Your task to perform on an android device: Open battery settings Image 0: 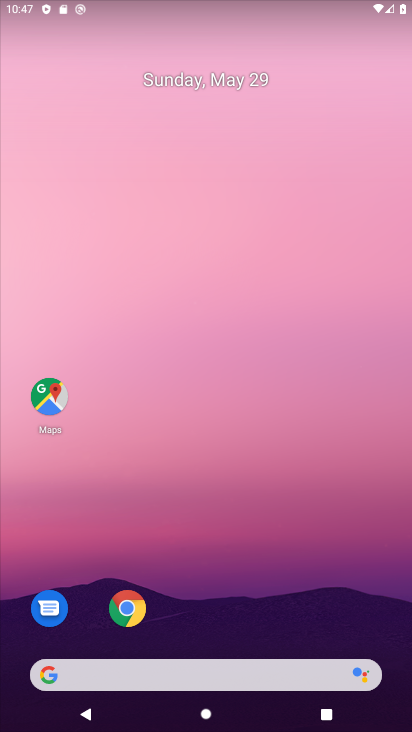
Step 0: drag from (129, 724) to (113, 38)
Your task to perform on an android device: Open battery settings Image 1: 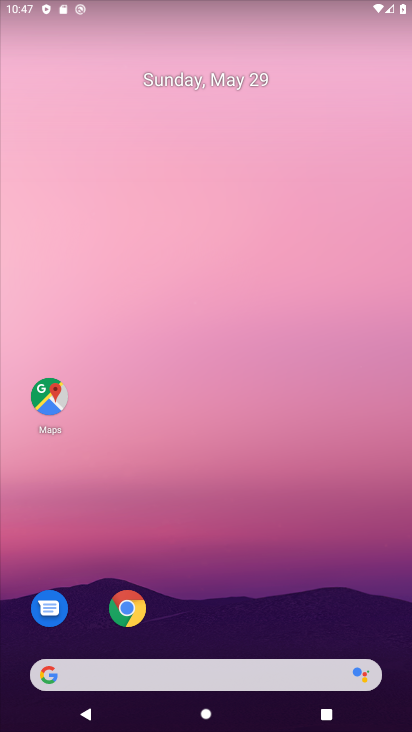
Step 1: drag from (144, 728) to (104, 19)
Your task to perform on an android device: Open battery settings Image 2: 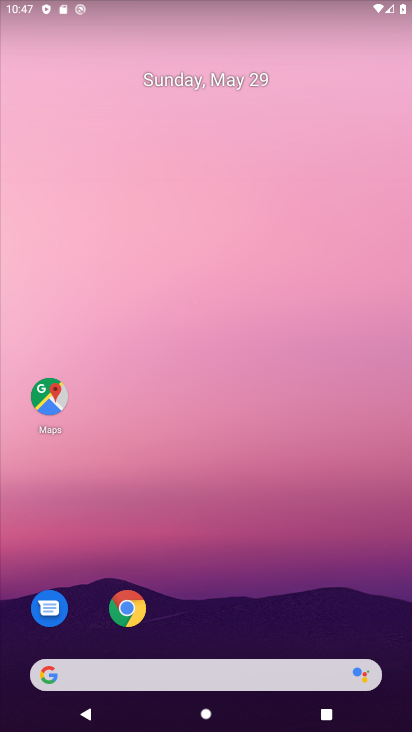
Step 2: drag from (227, 7) to (179, 539)
Your task to perform on an android device: Open battery settings Image 3: 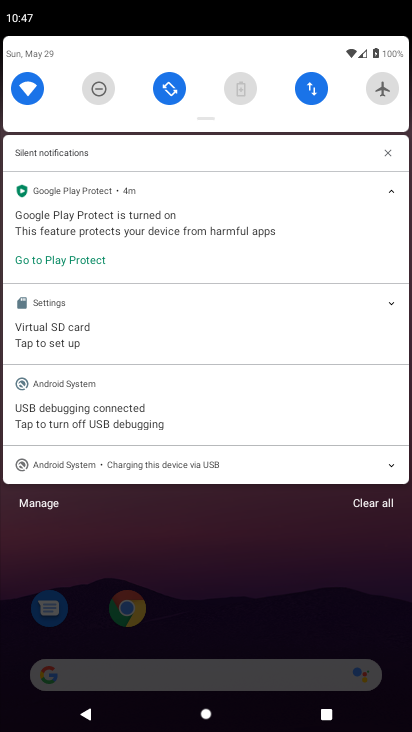
Step 3: click (204, 103)
Your task to perform on an android device: Open battery settings Image 4: 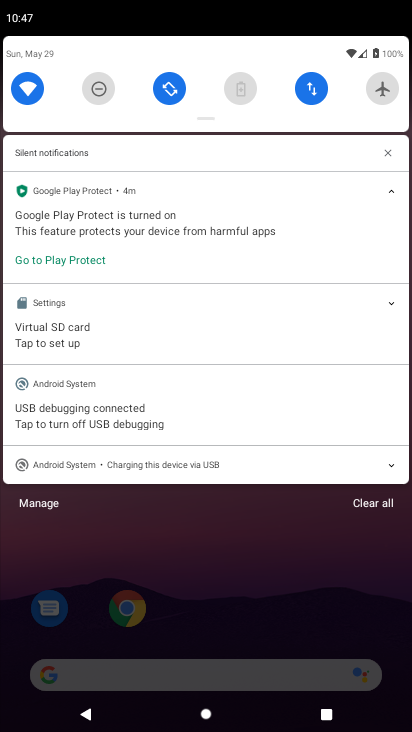
Step 4: drag from (210, 114) to (204, 556)
Your task to perform on an android device: Open battery settings Image 5: 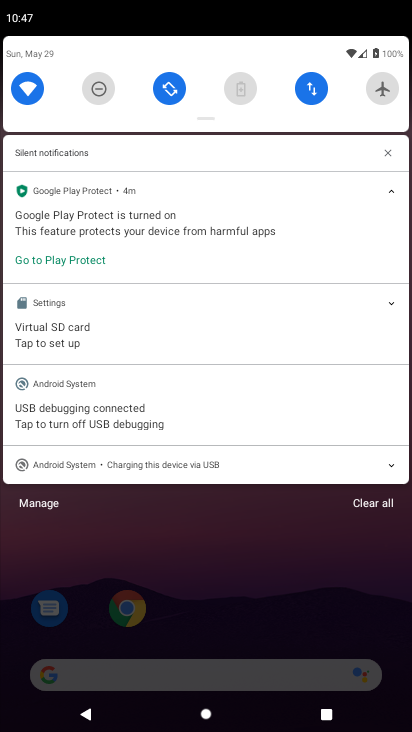
Step 5: drag from (204, 122) to (218, 547)
Your task to perform on an android device: Open battery settings Image 6: 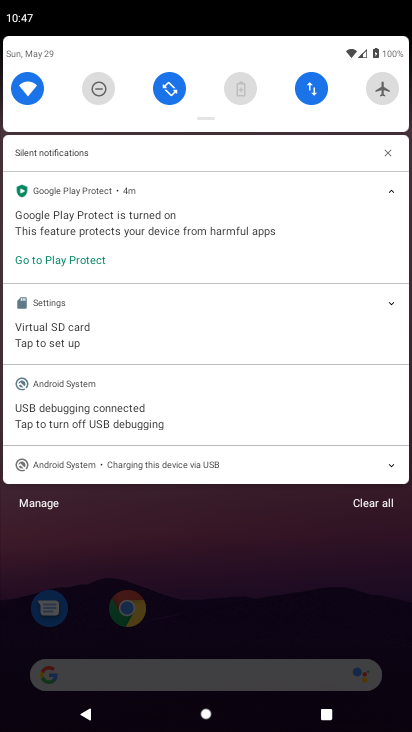
Step 6: drag from (213, 120) to (220, 648)
Your task to perform on an android device: Open battery settings Image 7: 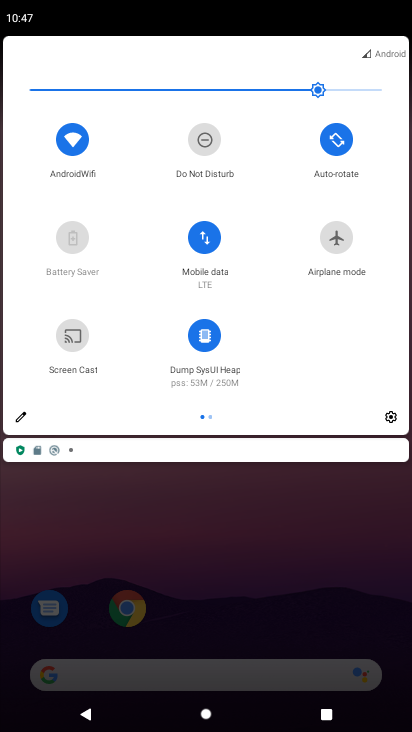
Step 7: click (393, 418)
Your task to perform on an android device: Open battery settings Image 8: 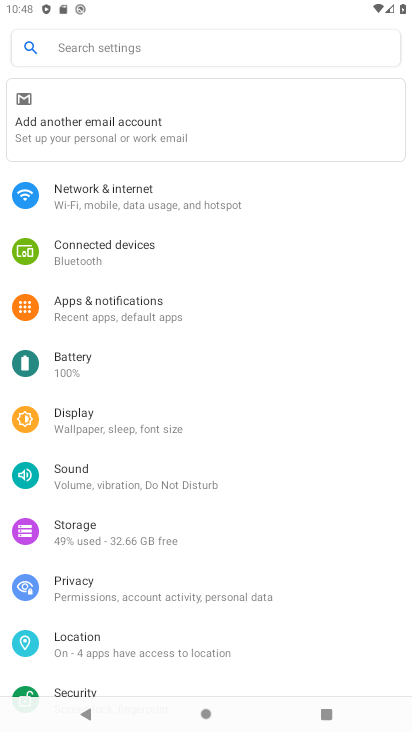
Step 8: click (106, 371)
Your task to perform on an android device: Open battery settings Image 9: 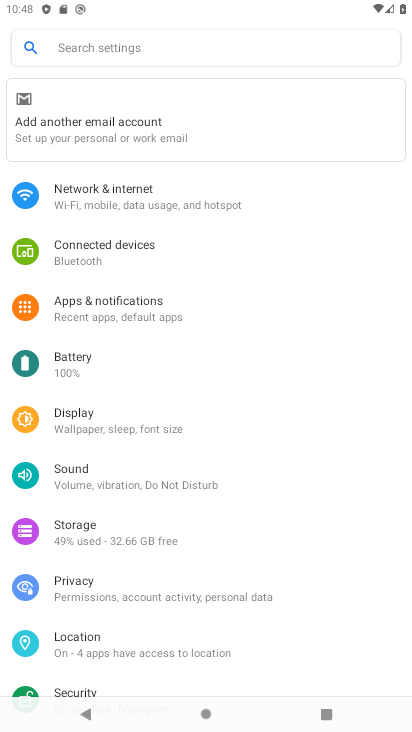
Step 9: click (73, 367)
Your task to perform on an android device: Open battery settings Image 10: 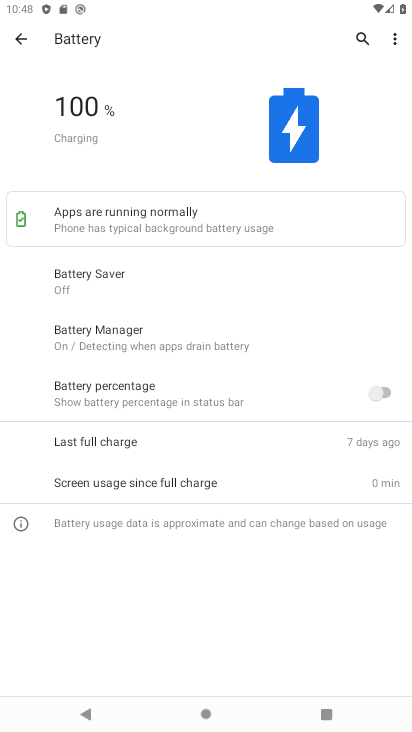
Step 10: task complete